Your task to perform on an android device: turn off javascript in the chrome app Image 0: 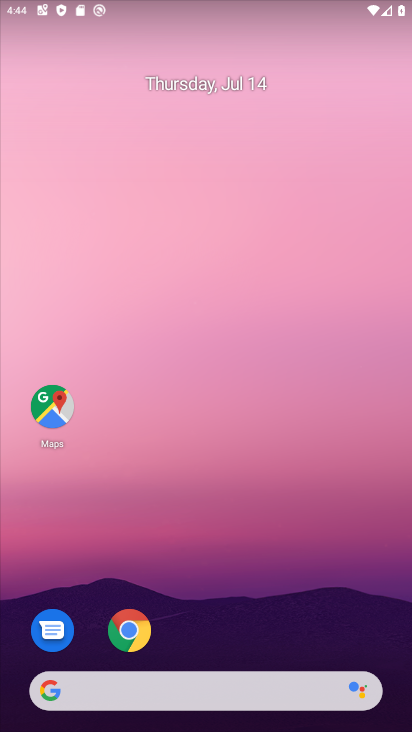
Step 0: click (121, 638)
Your task to perform on an android device: turn off javascript in the chrome app Image 1: 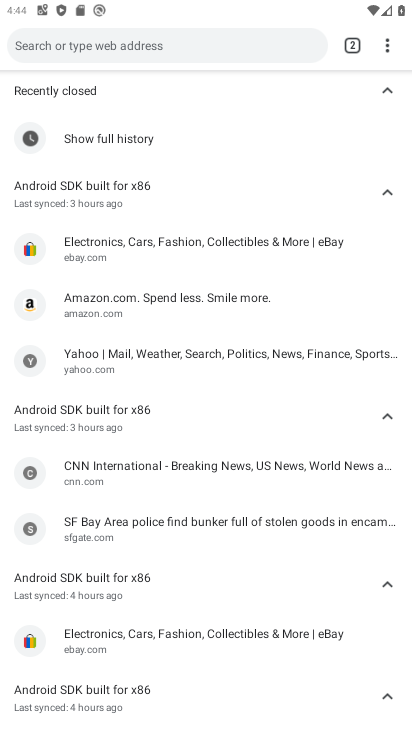
Step 1: click (386, 36)
Your task to perform on an android device: turn off javascript in the chrome app Image 2: 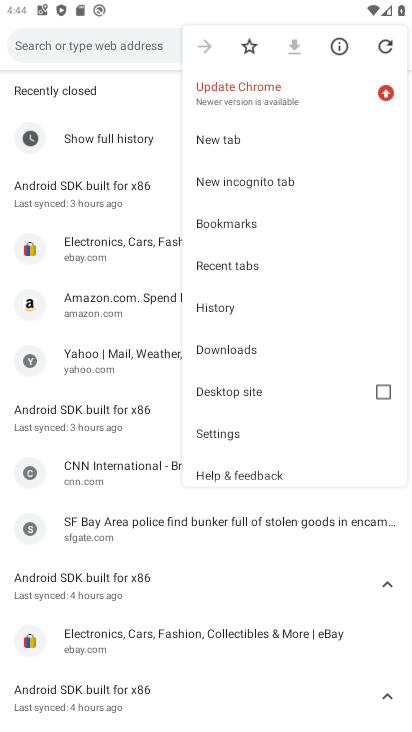
Step 2: click (221, 441)
Your task to perform on an android device: turn off javascript in the chrome app Image 3: 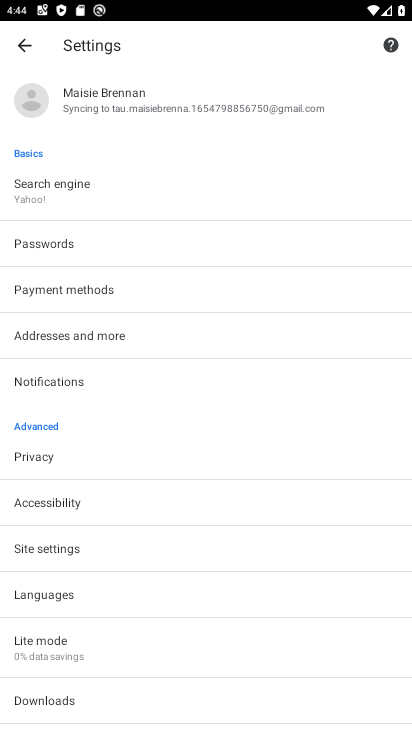
Step 3: click (78, 535)
Your task to perform on an android device: turn off javascript in the chrome app Image 4: 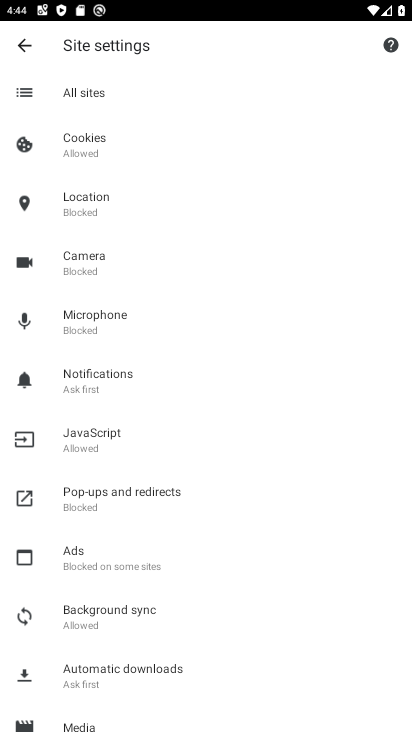
Step 4: click (124, 427)
Your task to perform on an android device: turn off javascript in the chrome app Image 5: 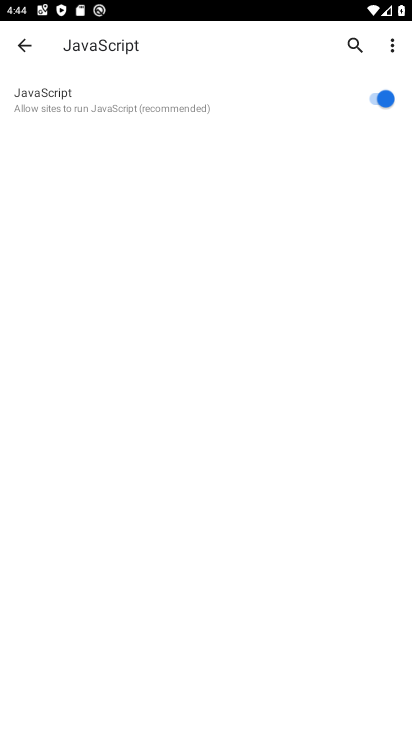
Step 5: click (388, 101)
Your task to perform on an android device: turn off javascript in the chrome app Image 6: 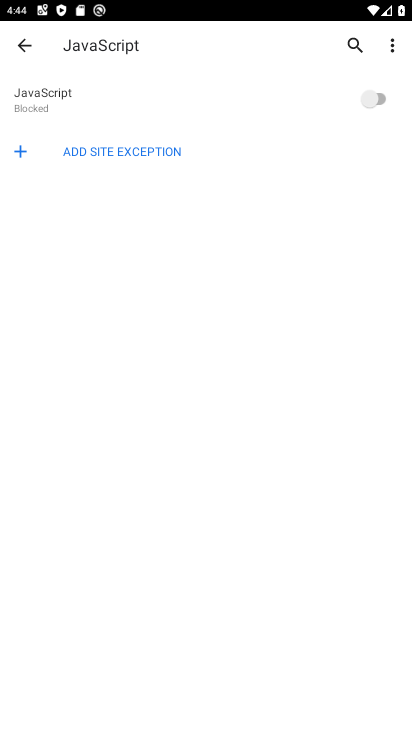
Step 6: task complete